Your task to perform on an android device: What's the price of the LG TV? Image 0: 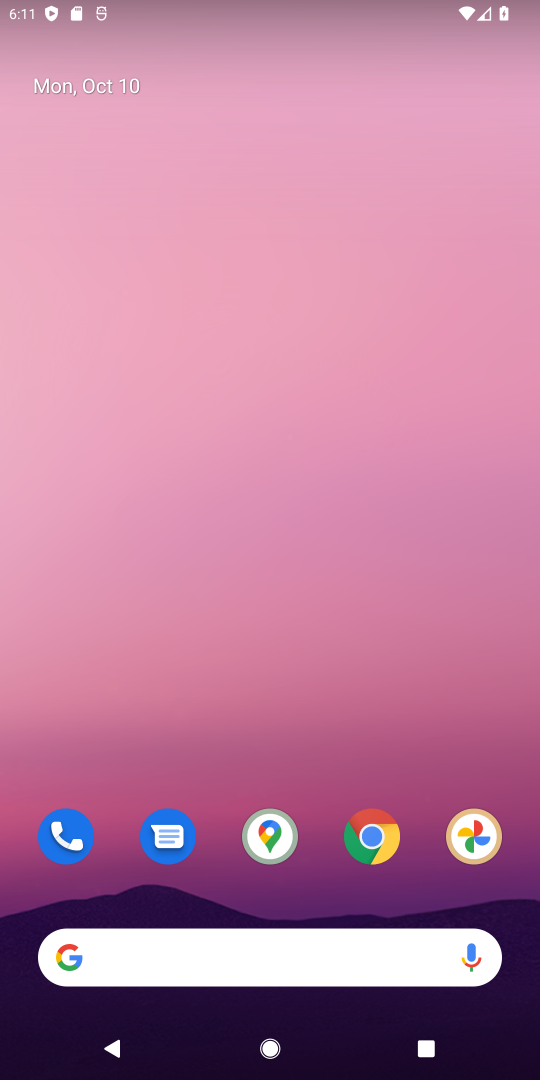
Step 0: click (371, 830)
Your task to perform on an android device: What's the price of the LG TV? Image 1: 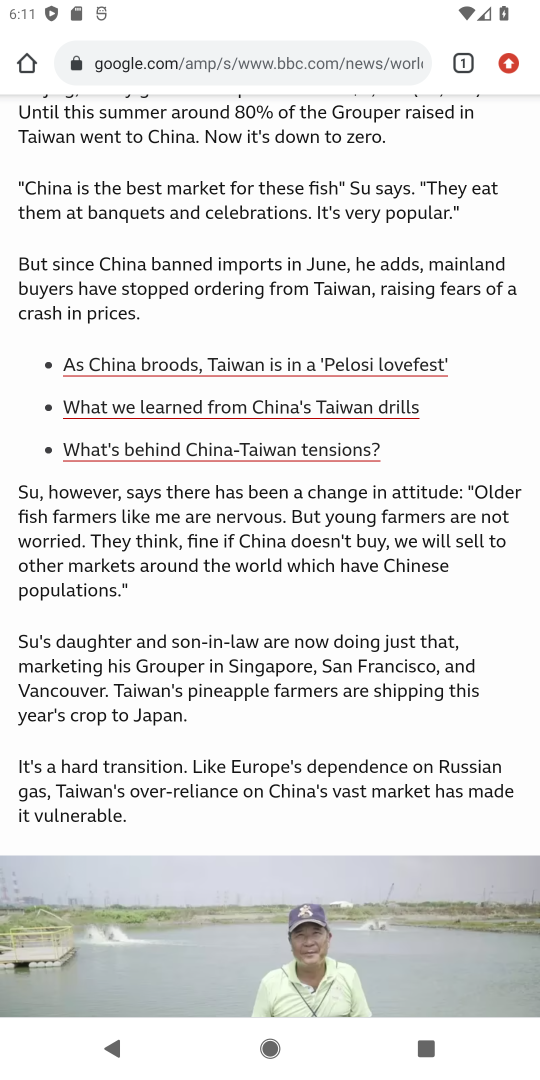
Step 1: click (220, 46)
Your task to perform on an android device: What's the price of the LG TV? Image 2: 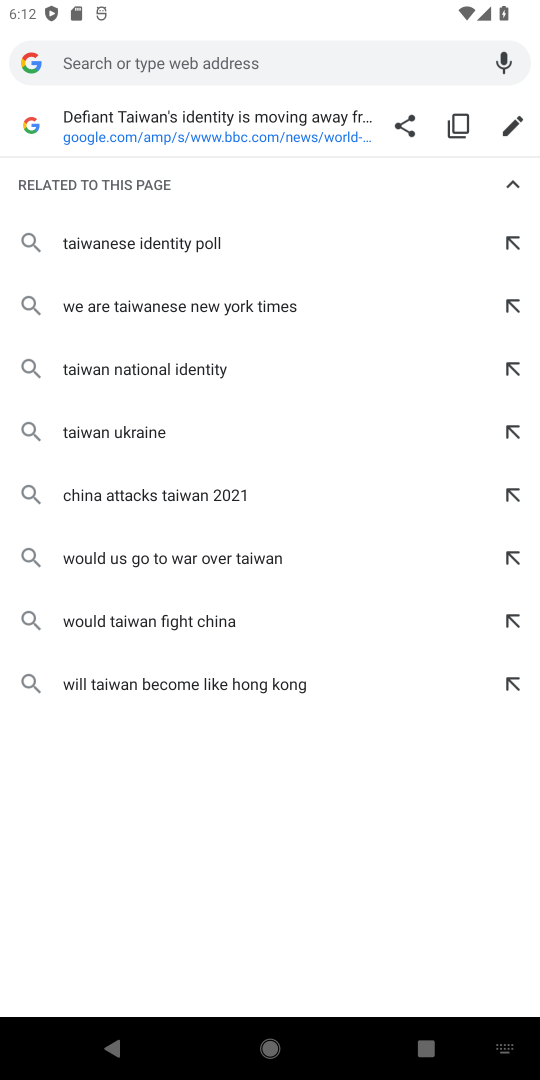
Step 2: type "price of the LG TV?"
Your task to perform on an android device: What's the price of the LG TV? Image 3: 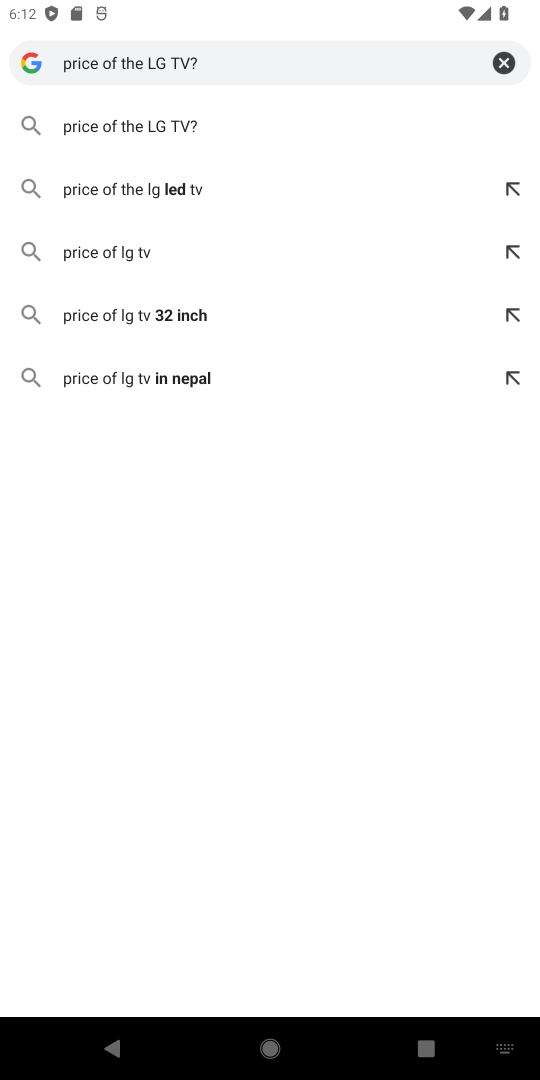
Step 3: click (138, 128)
Your task to perform on an android device: What's the price of the LG TV? Image 4: 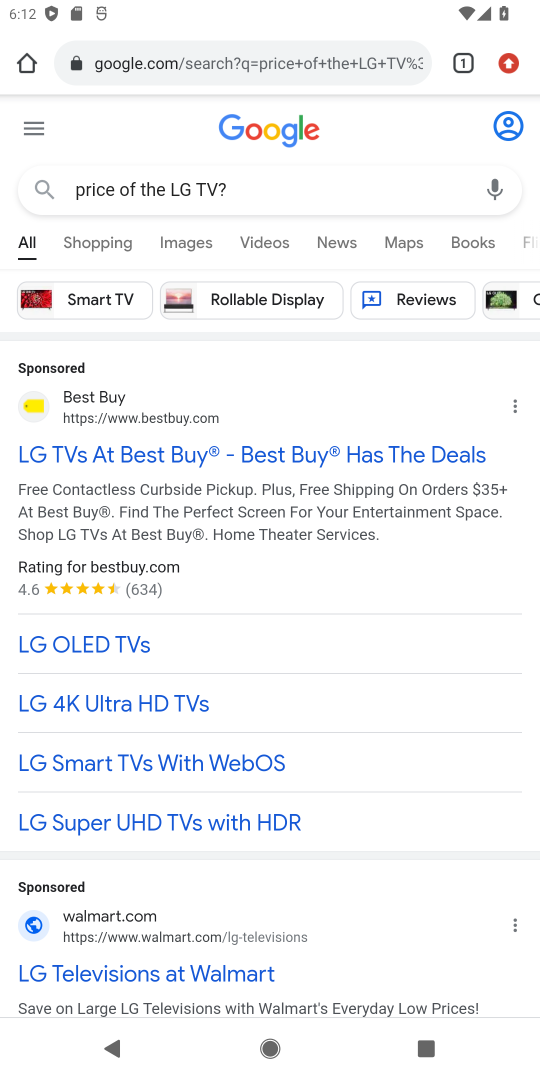
Step 4: click (102, 464)
Your task to perform on an android device: What's the price of the LG TV? Image 5: 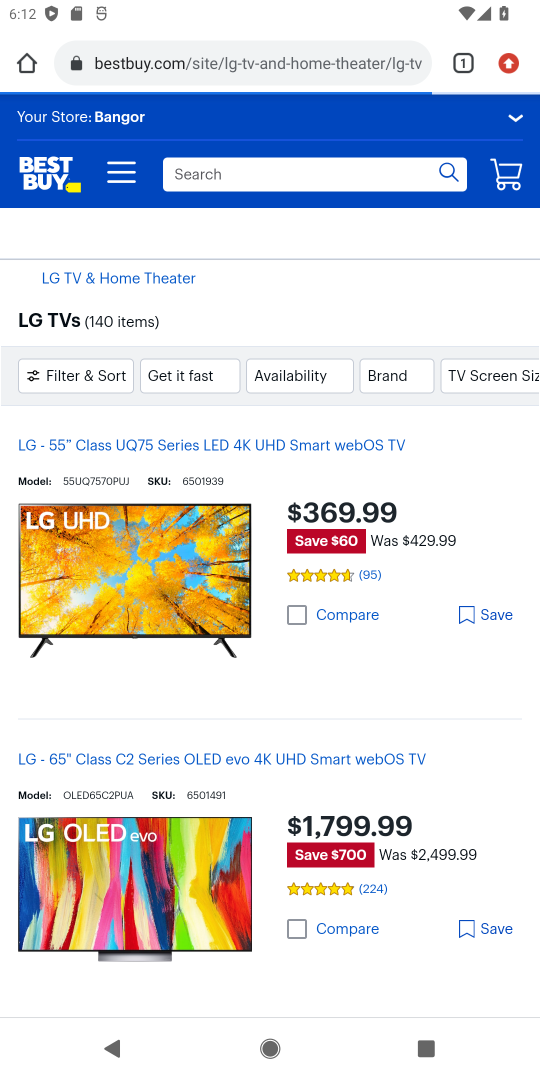
Step 5: task complete